Your task to perform on an android device: set default search engine in the chrome app Image 0: 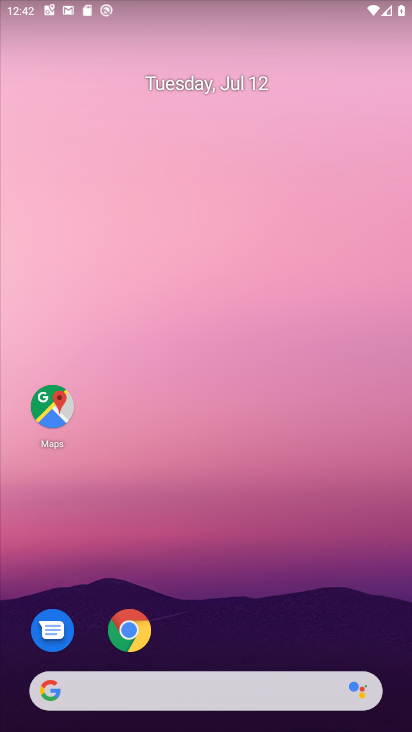
Step 0: drag from (286, 618) to (288, 367)
Your task to perform on an android device: set default search engine in the chrome app Image 1: 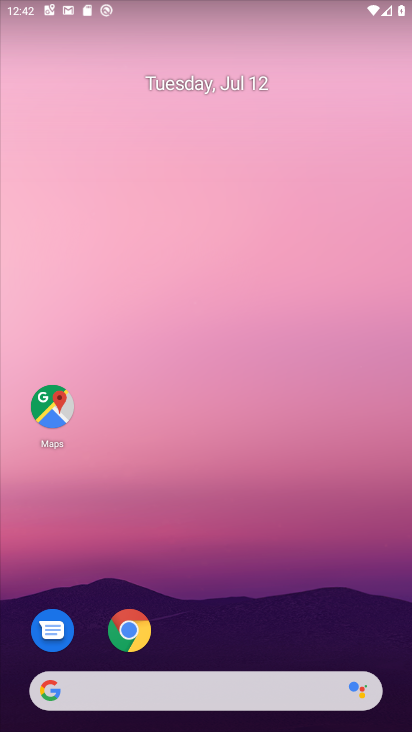
Step 1: drag from (270, 574) to (281, 200)
Your task to perform on an android device: set default search engine in the chrome app Image 2: 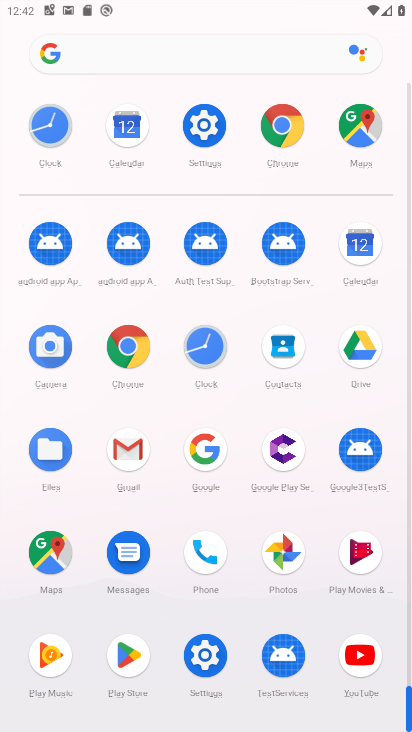
Step 2: click (283, 147)
Your task to perform on an android device: set default search engine in the chrome app Image 3: 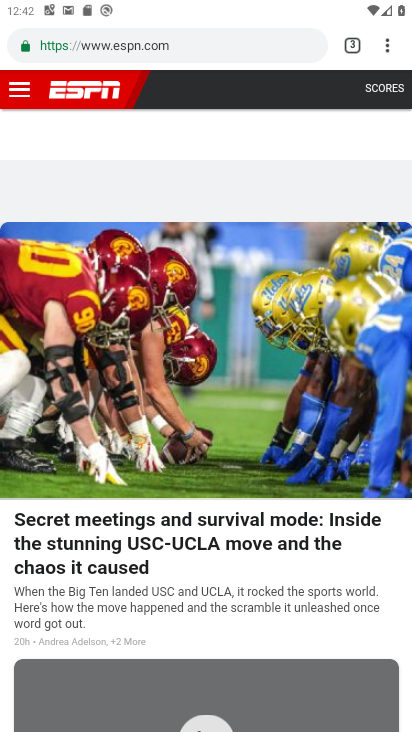
Step 3: click (385, 41)
Your task to perform on an android device: set default search engine in the chrome app Image 4: 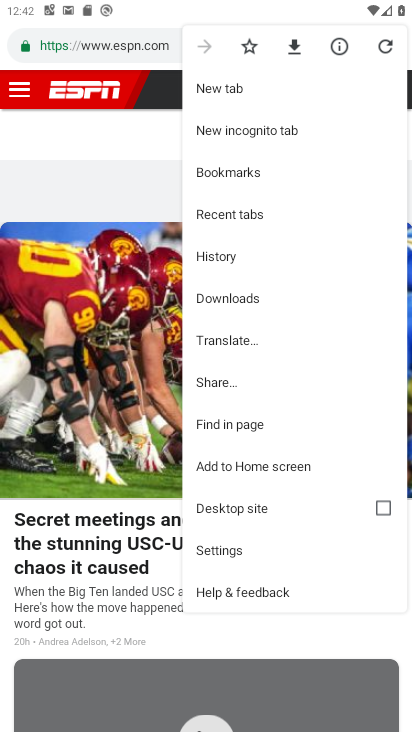
Step 4: click (211, 552)
Your task to perform on an android device: set default search engine in the chrome app Image 5: 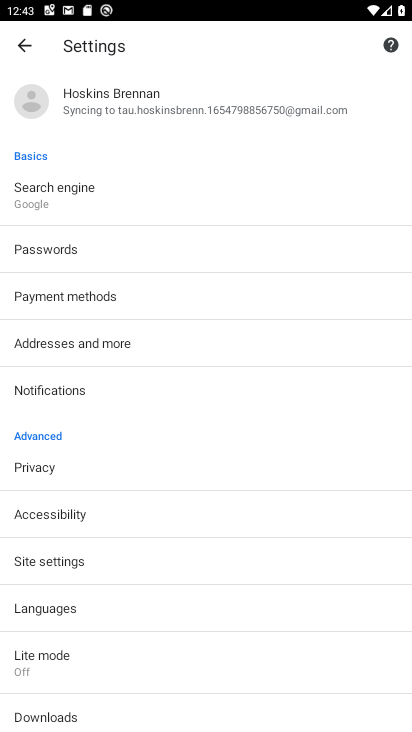
Step 5: click (79, 200)
Your task to perform on an android device: set default search engine in the chrome app Image 6: 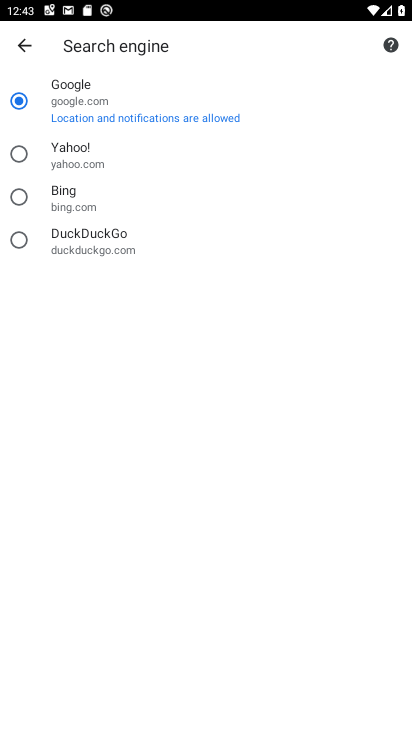
Step 6: task complete